Your task to perform on an android device: Open Chrome and go to settings Image 0: 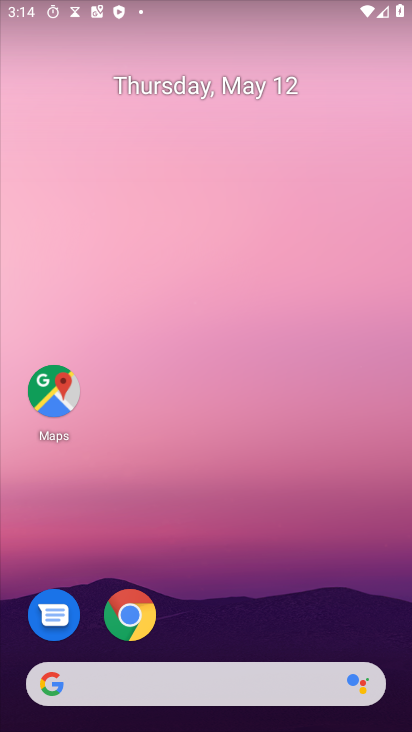
Step 0: press home button
Your task to perform on an android device: Open Chrome and go to settings Image 1: 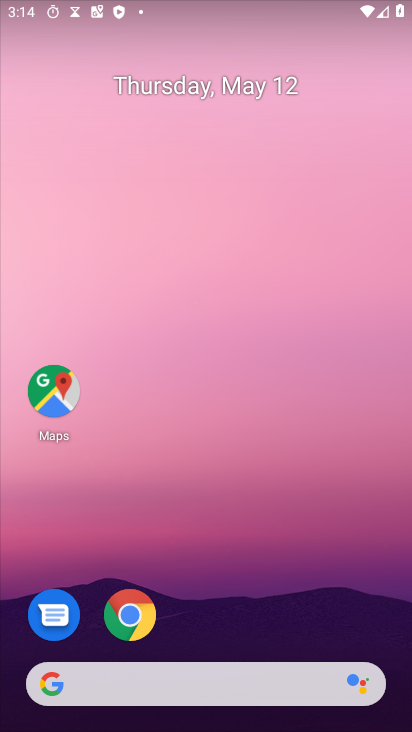
Step 1: click (127, 608)
Your task to perform on an android device: Open Chrome and go to settings Image 2: 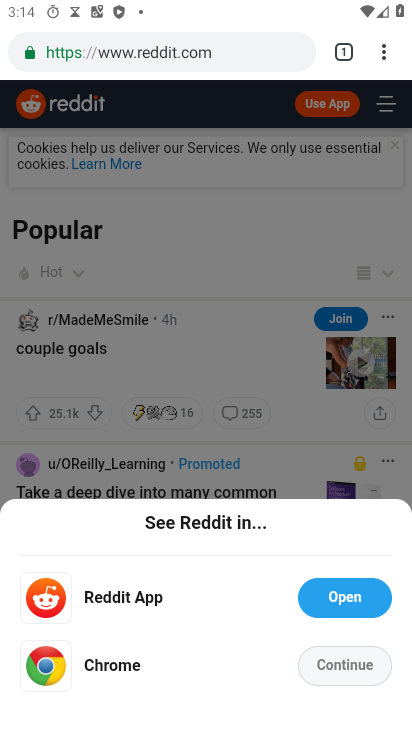
Step 2: click (384, 53)
Your task to perform on an android device: Open Chrome and go to settings Image 3: 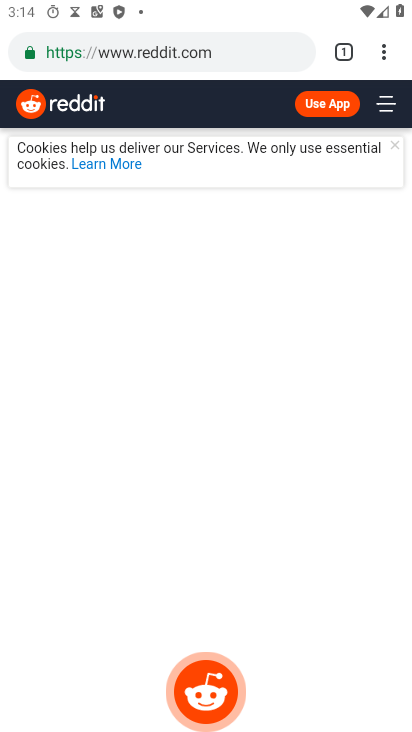
Step 3: click (368, 52)
Your task to perform on an android device: Open Chrome and go to settings Image 4: 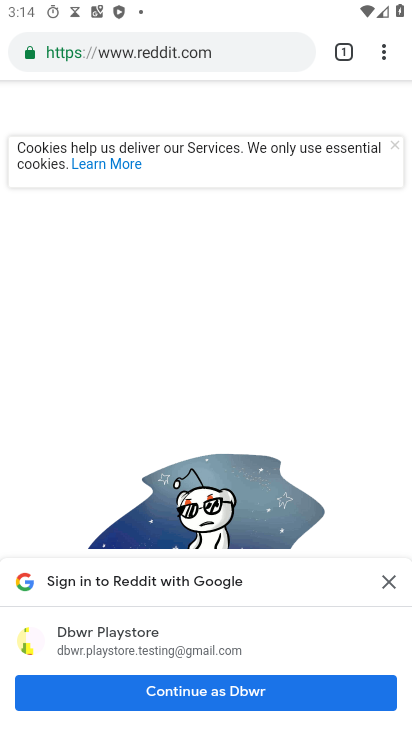
Step 4: click (377, 51)
Your task to perform on an android device: Open Chrome and go to settings Image 5: 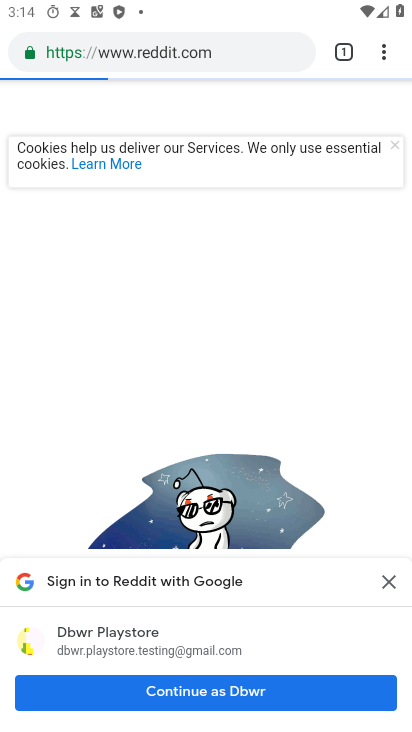
Step 5: click (377, 51)
Your task to perform on an android device: Open Chrome and go to settings Image 6: 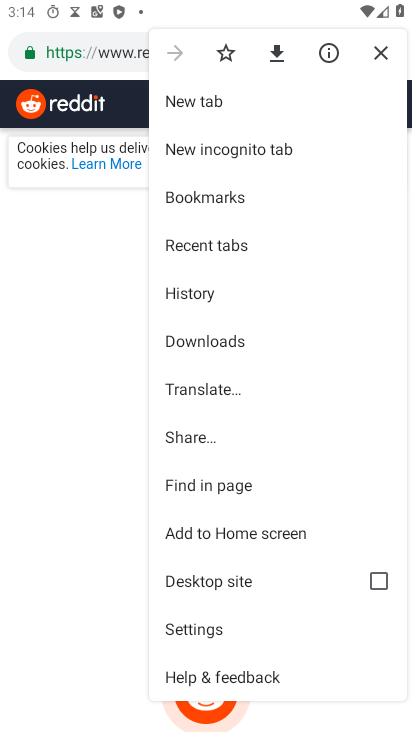
Step 6: click (200, 635)
Your task to perform on an android device: Open Chrome and go to settings Image 7: 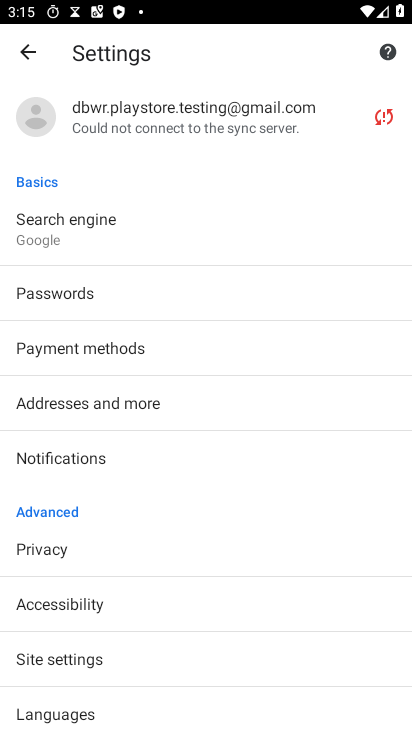
Step 7: task complete